Your task to perform on an android device: turn on location history Image 0: 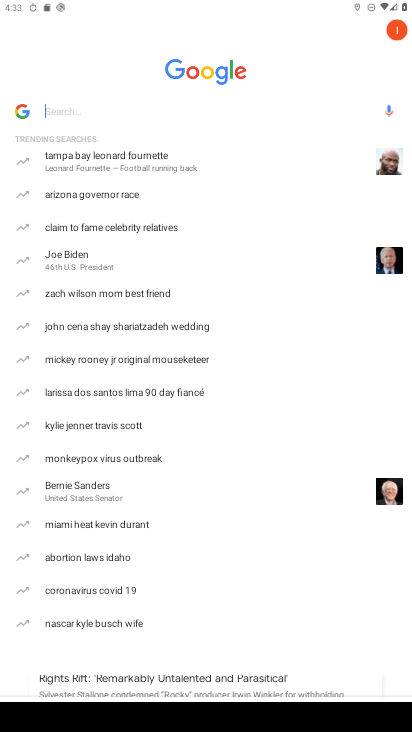
Step 0: press home button
Your task to perform on an android device: turn on location history Image 1: 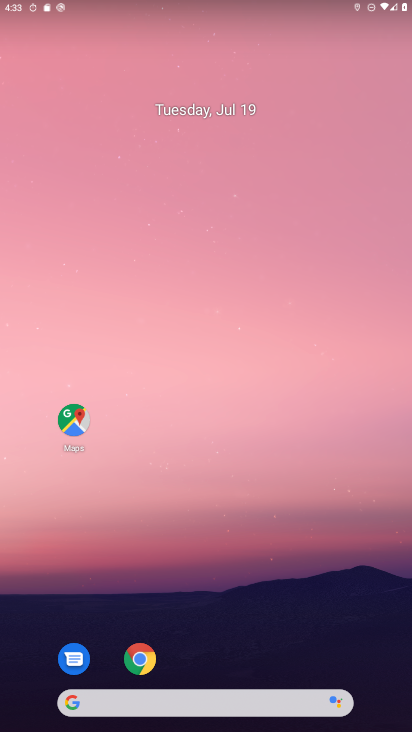
Step 1: drag from (244, 594) to (372, 0)
Your task to perform on an android device: turn on location history Image 2: 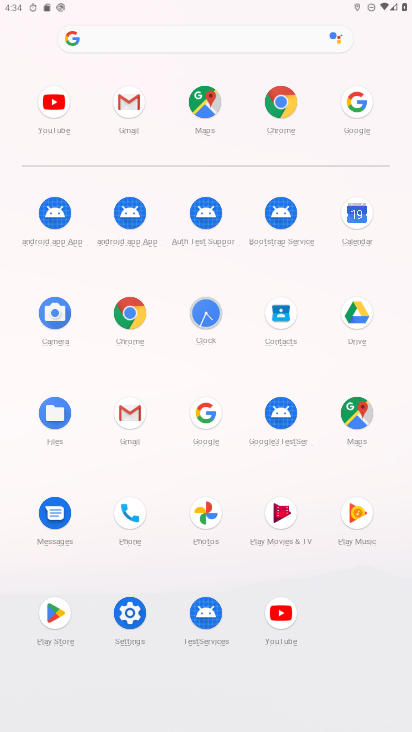
Step 2: click (132, 632)
Your task to perform on an android device: turn on location history Image 3: 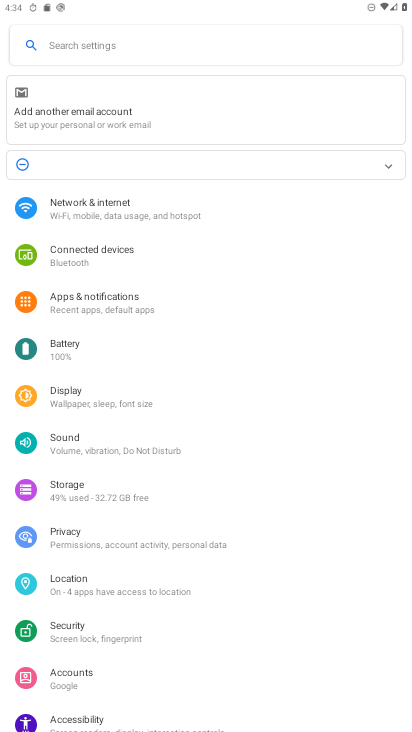
Step 3: drag from (120, 600) to (261, 267)
Your task to perform on an android device: turn on location history Image 4: 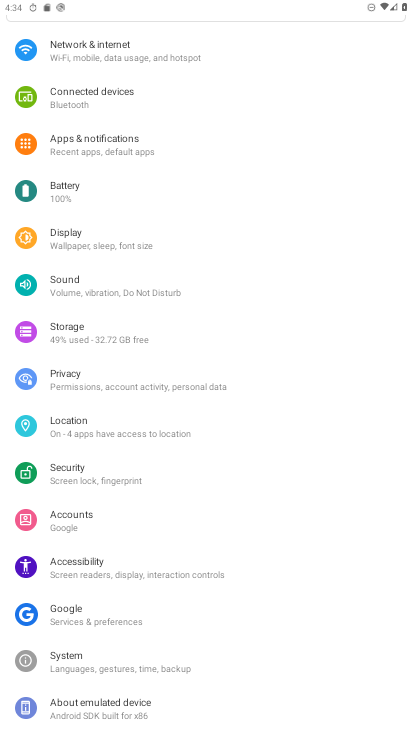
Step 4: click (73, 433)
Your task to perform on an android device: turn on location history Image 5: 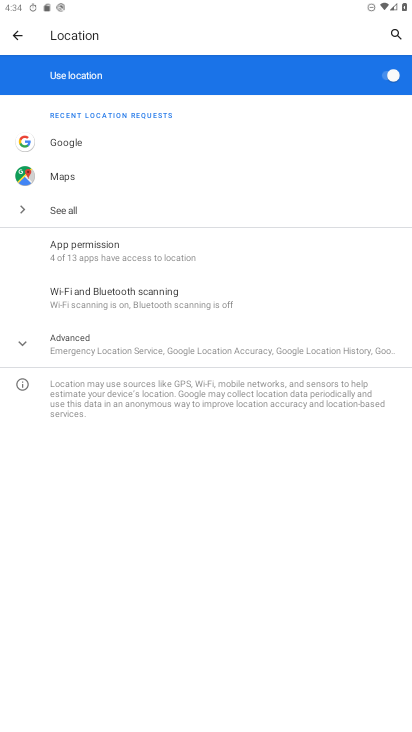
Step 5: click (144, 346)
Your task to perform on an android device: turn on location history Image 6: 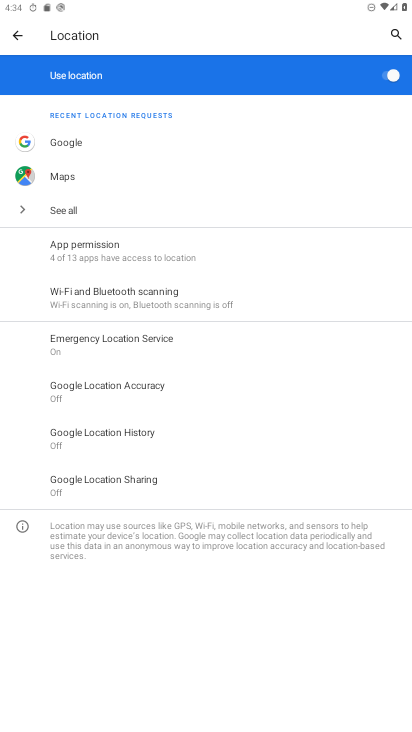
Step 6: click (120, 432)
Your task to perform on an android device: turn on location history Image 7: 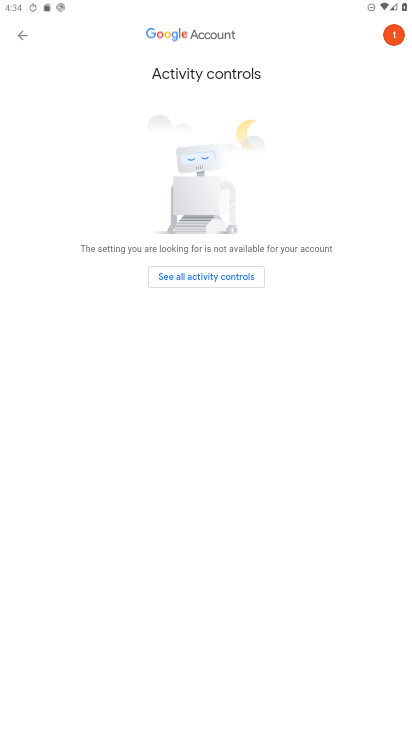
Step 7: task complete